Your task to perform on an android device: see tabs open on other devices in the chrome app Image 0: 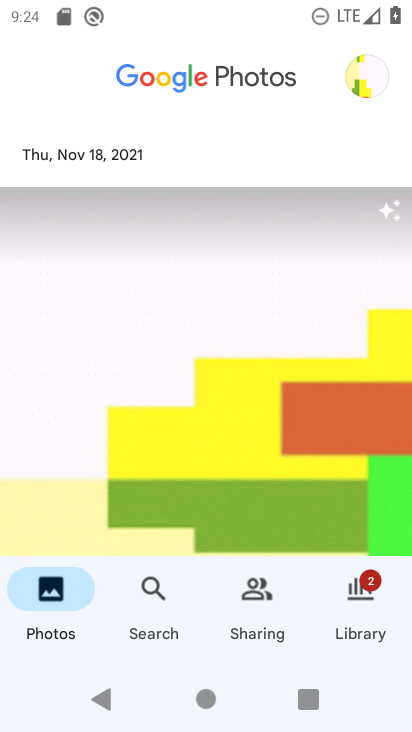
Step 0: press home button
Your task to perform on an android device: see tabs open on other devices in the chrome app Image 1: 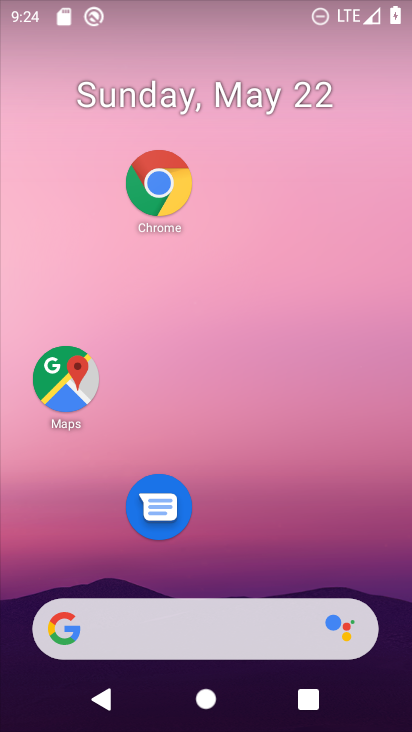
Step 1: click (154, 206)
Your task to perform on an android device: see tabs open on other devices in the chrome app Image 2: 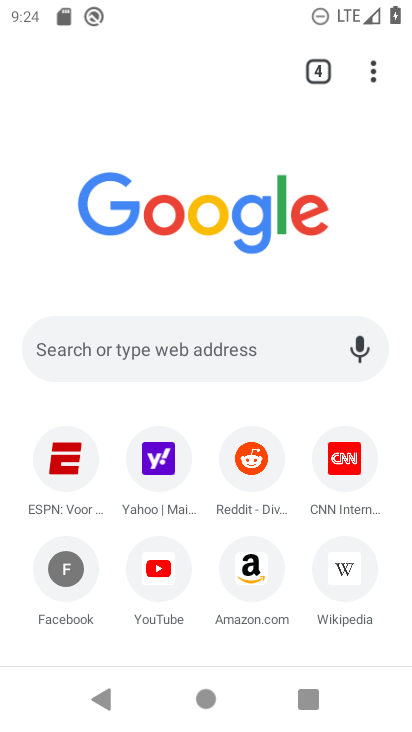
Step 2: click (381, 68)
Your task to perform on an android device: see tabs open on other devices in the chrome app Image 3: 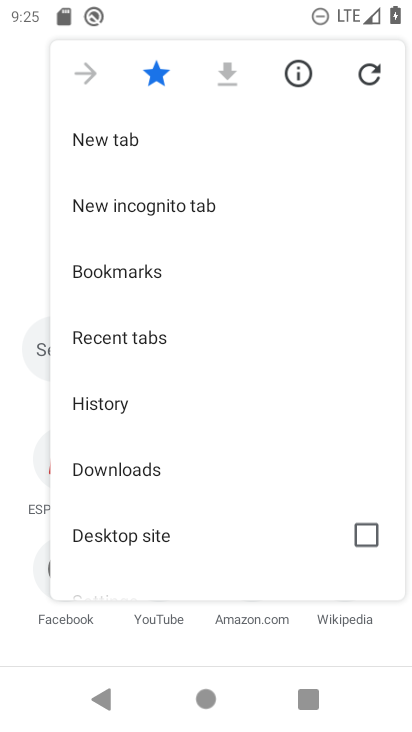
Step 3: click (107, 339)
Your task to perform on an android device: see tabs open on other devices in the chrome app Image 4: 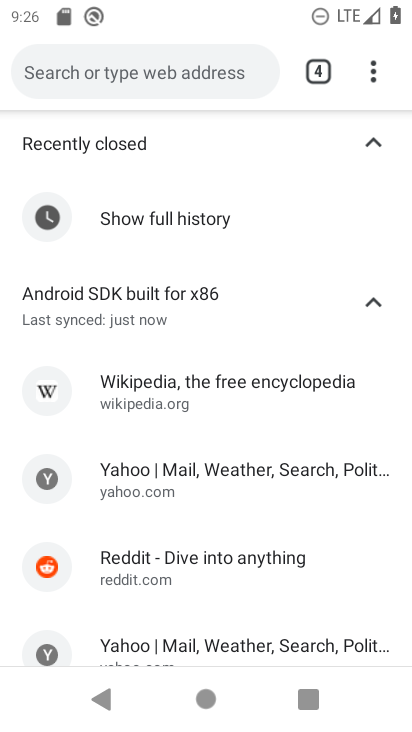
Step 4: task complete